Your task to perform on an android device: open app "Google Translate" (install if not already installed) Image 0: 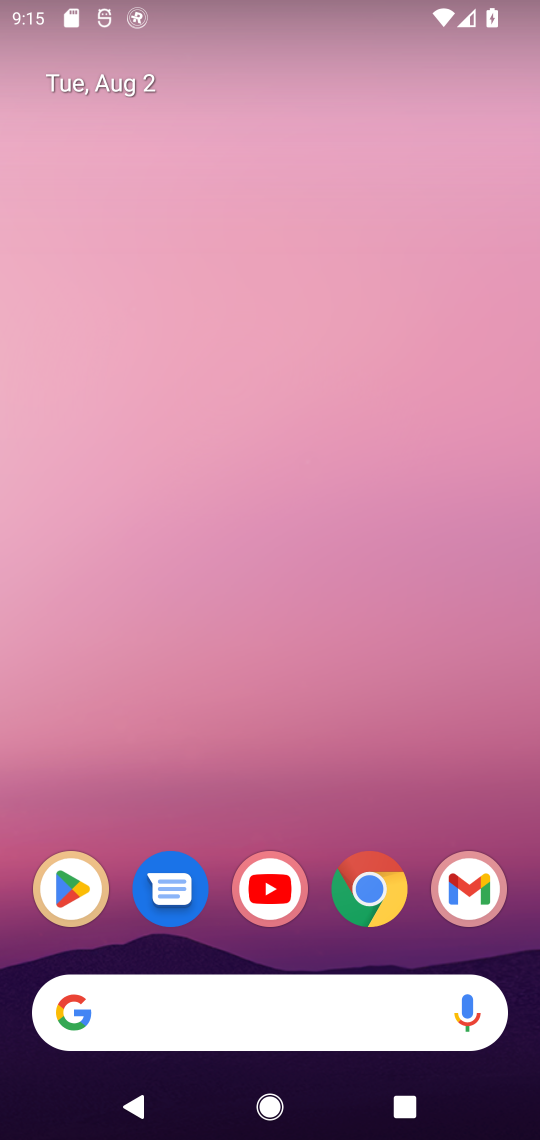
Step 0: click (83, 881)
Your task to perform on an android device: open app "Google Translate" (install if not already installed) Image 1: 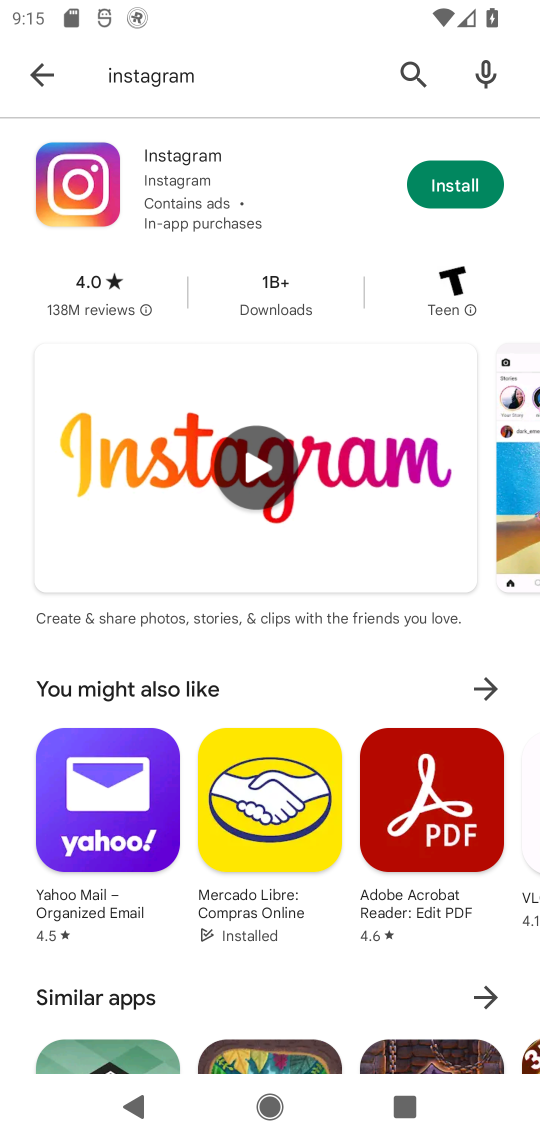
Step 1: press home button
Your task to perform on an android device: open app "Google Translate" (install if not already installed) Image 2: 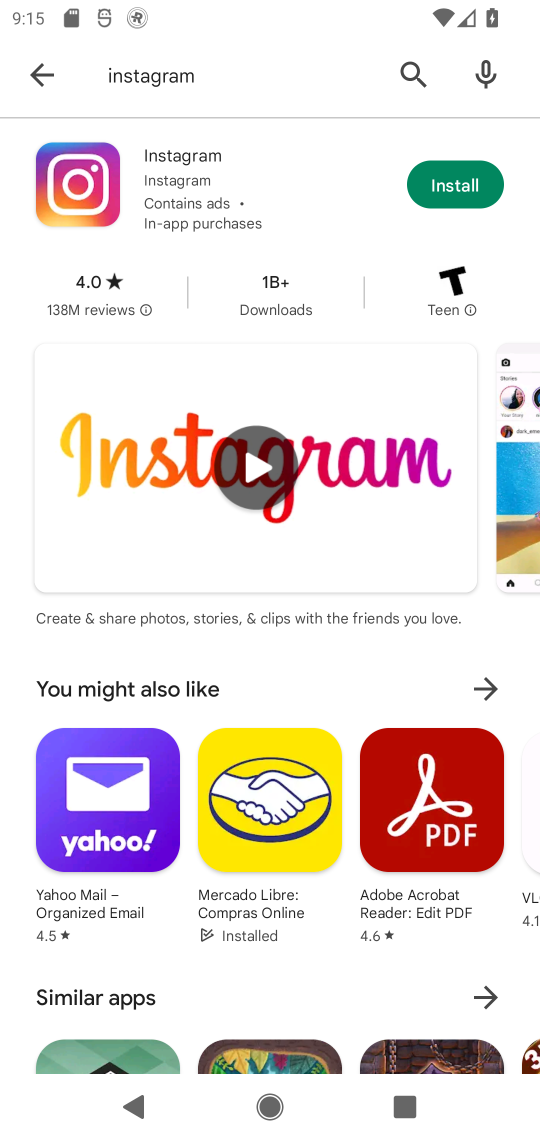
Step 2: press home button
Your task to perform on an android device: open app "Google Translate" (install if not already installed) Image 3: 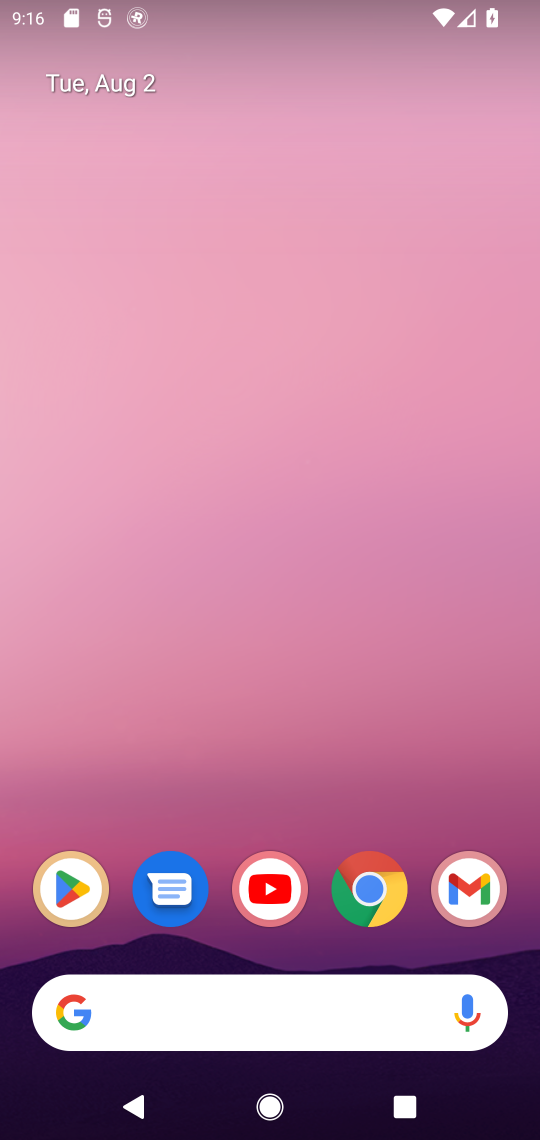
Step 3: click (74, 886)
Your task to perform on an android device: open app "Google Translate" (install if not already installed) Image 4: 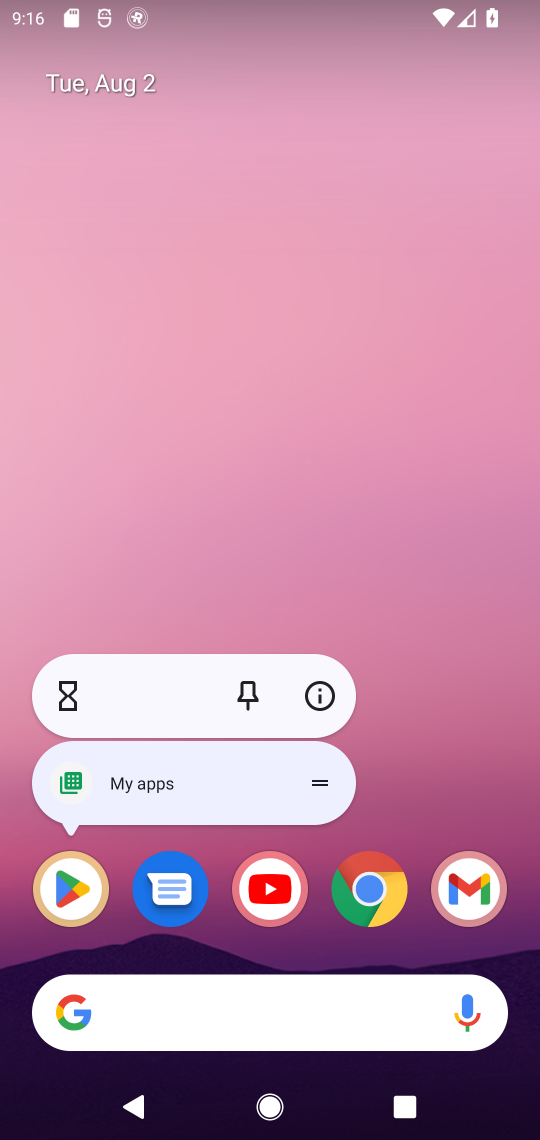
Step 4: click (74, 886)
Your task to perform on an android device: open app "Google Translate" (install if not already installed) Image 5: 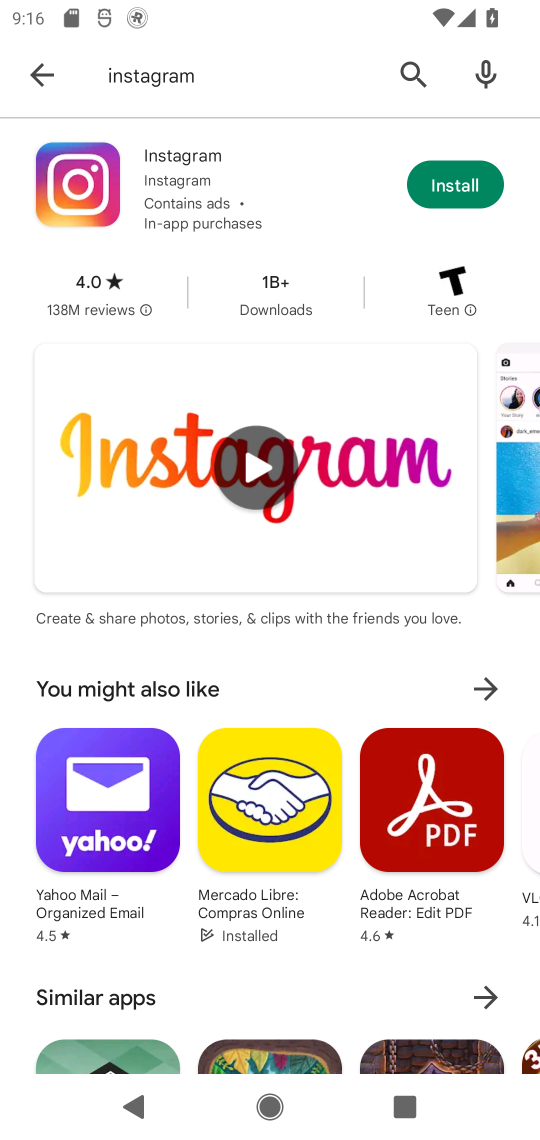
Step 5: click (413, 62)
Your task to perform on an android device: open app "Google Translate" (install if not already installed) Image 6: 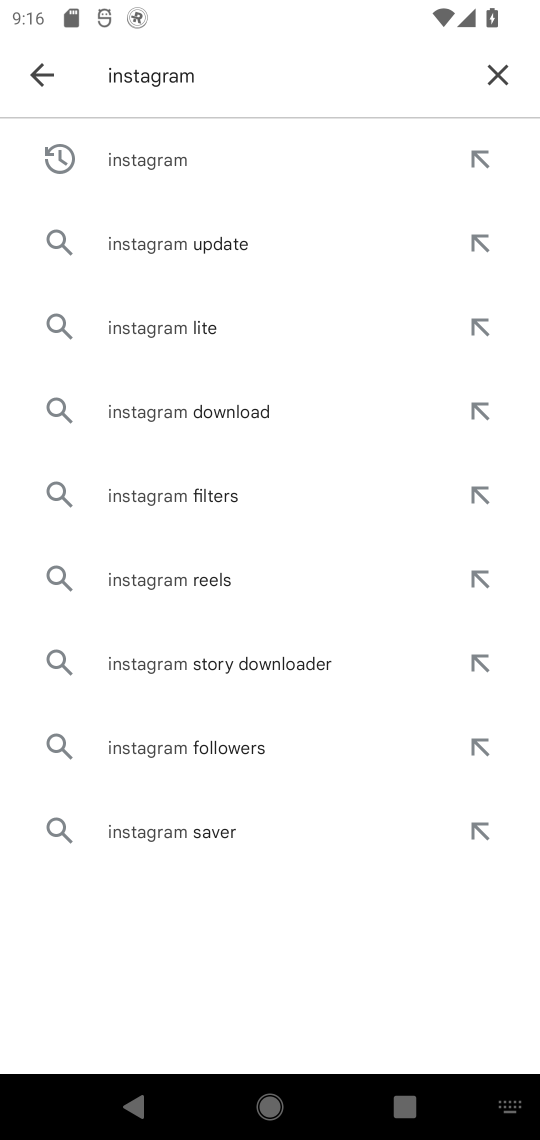
Step 6: click (490, 68)
Your task to perform on an android device: open app "Google Translate" (install if not already installed) Image 7: 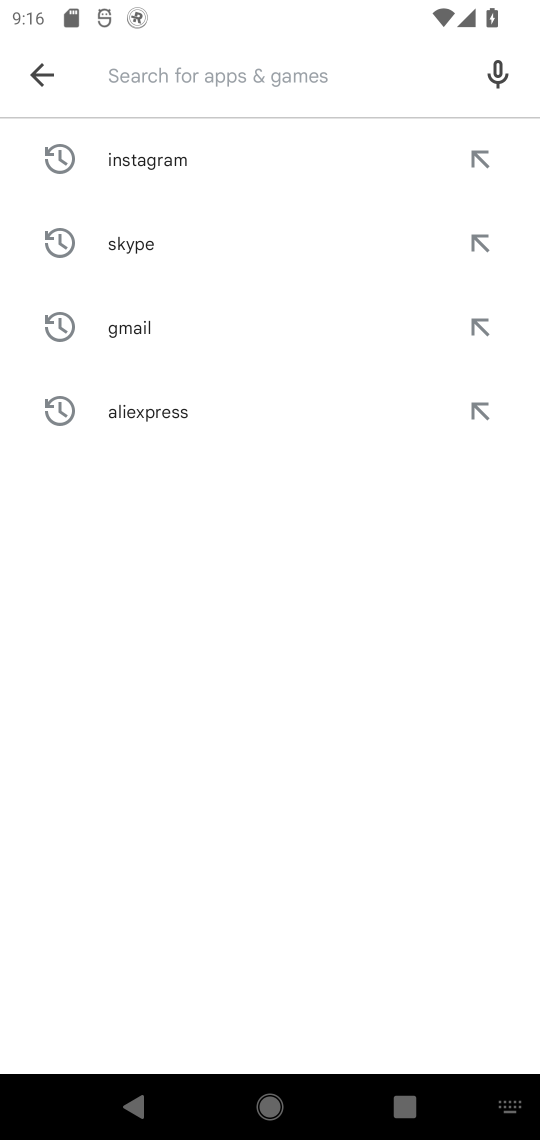
Step 7: click (208, 1137)
Your task to perform on an android device: open app "Google Translate" (install if not already installed) Image 8: 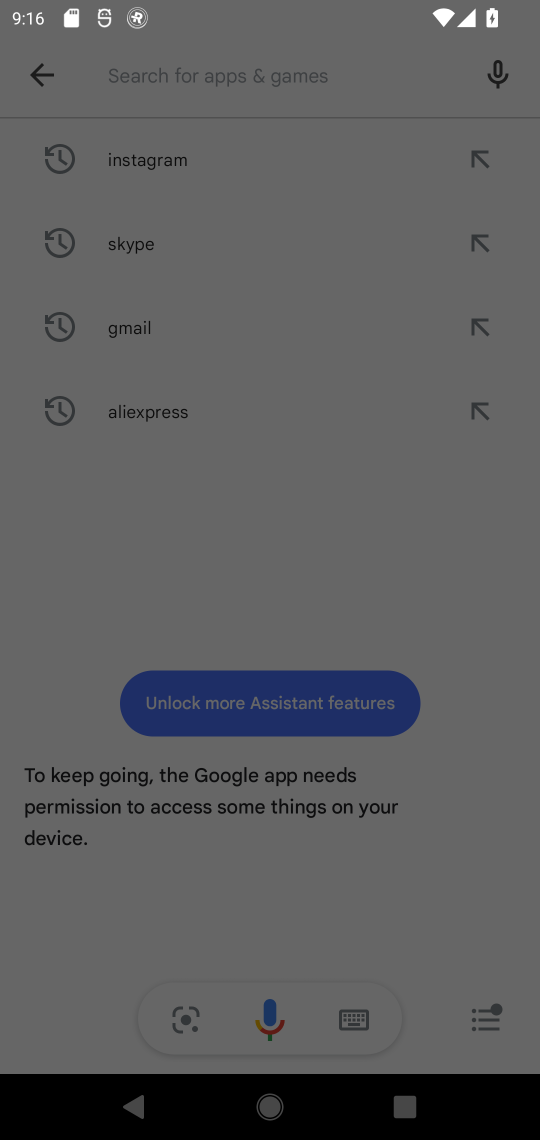
Step 8: type "Google Translate"
Your task to perform on an android device: open app "Google Translate" (install if not already installed) Image 9: 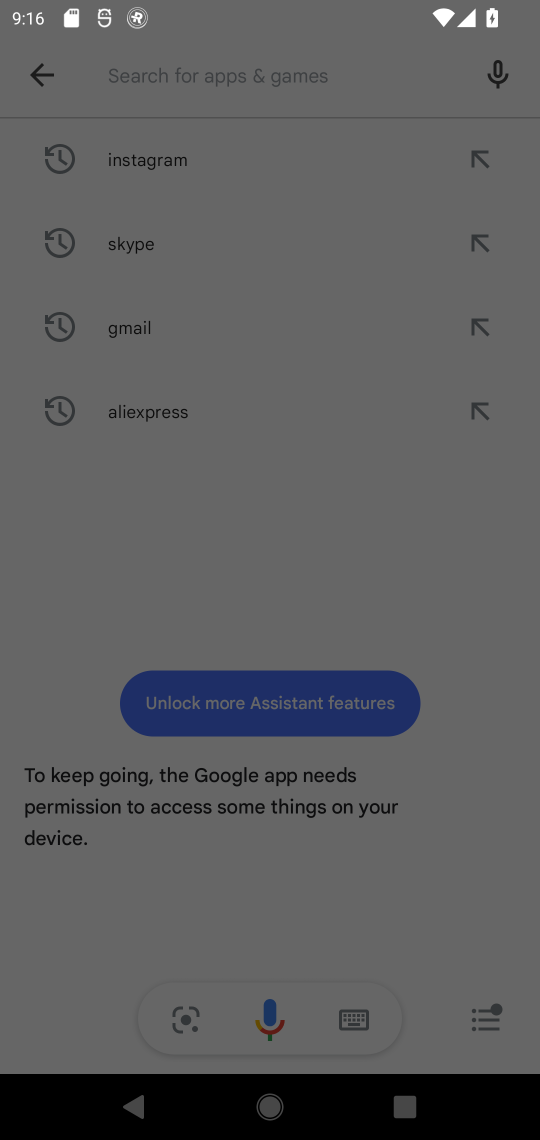
Step 9: click (230, 77)
Your task to perform on an android device: open app "Google Translate" (install if not already installed) Image 10: 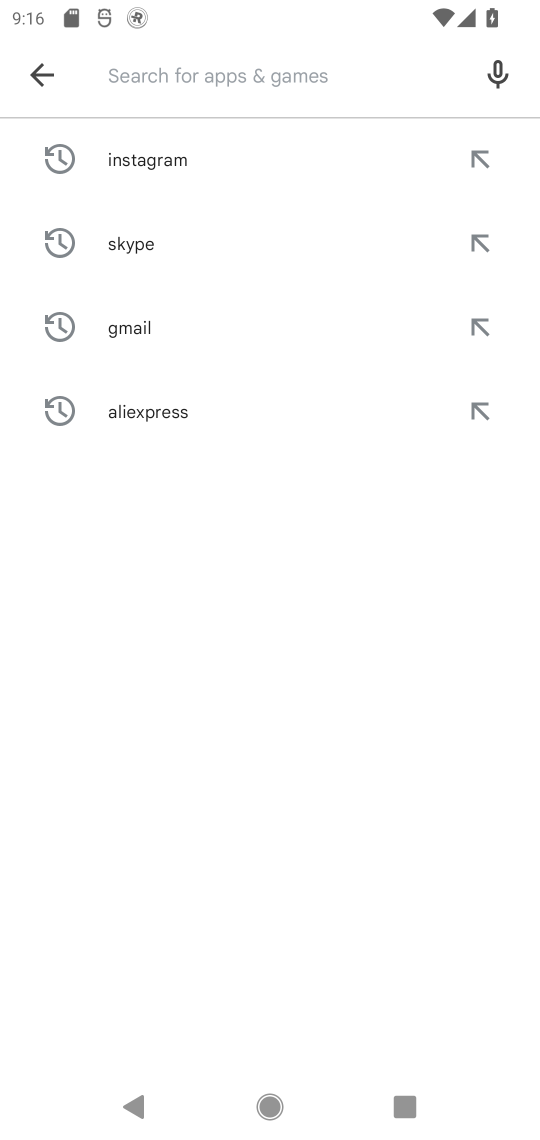
Step 10: type "Google Translate"
Your task to perform on an android device: open app "Google Translate" (install if not already installed) Image 11: 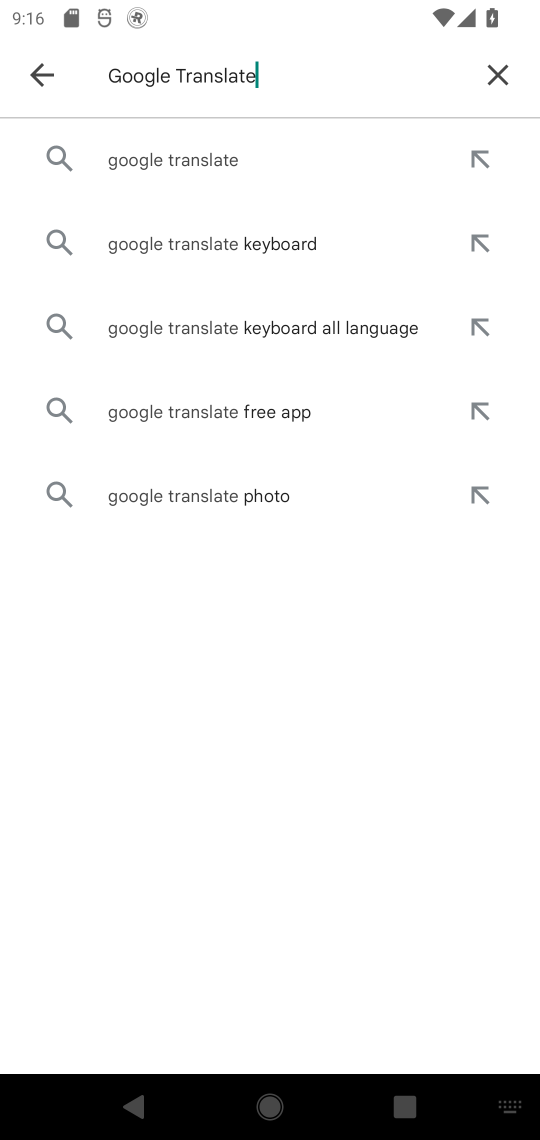
Step 11: click (211, 164)
Your task to perform on an android device: open app "Google Translate" (install if not already installed) Image 12: 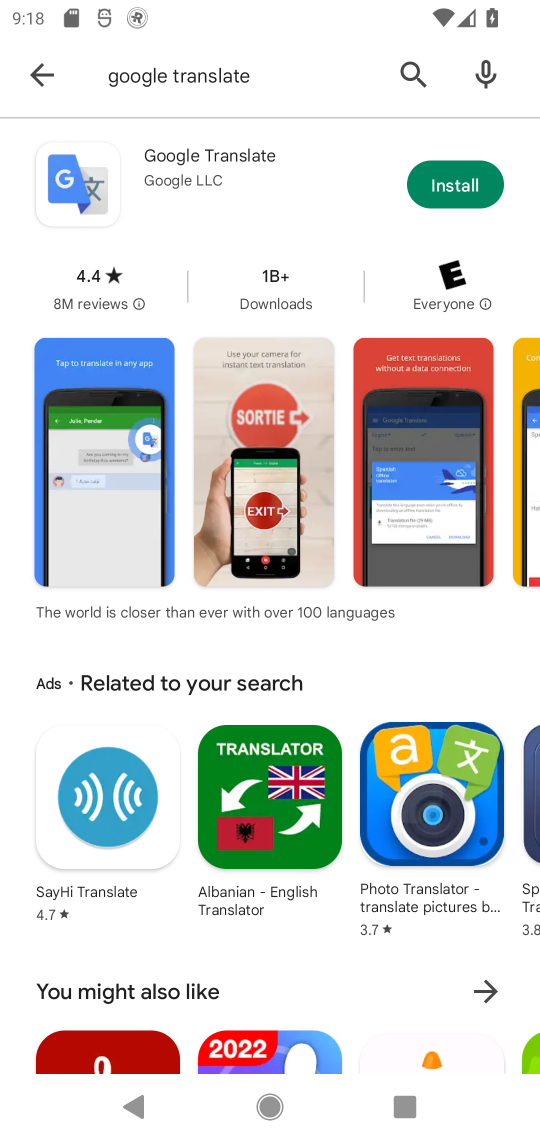
Step 12: click (456, 191)
Your task to perform on an android device: open app "Google Translate" (install if not already installed) Image 13: 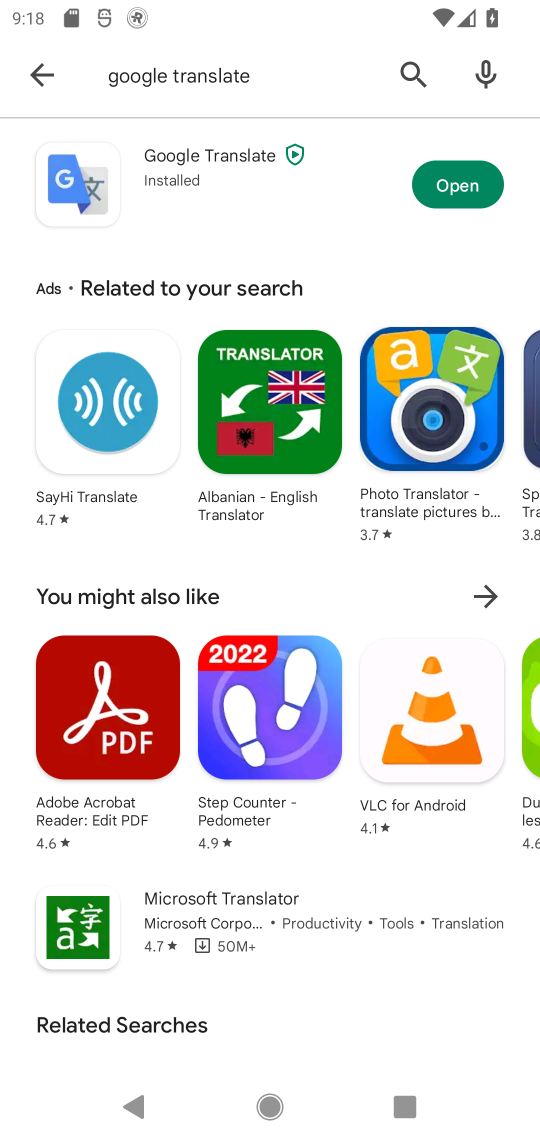
Step 13: click (456, 190)
Your task to perform on an android device: open app "Google Translate" (install if not already installed) Image 14: 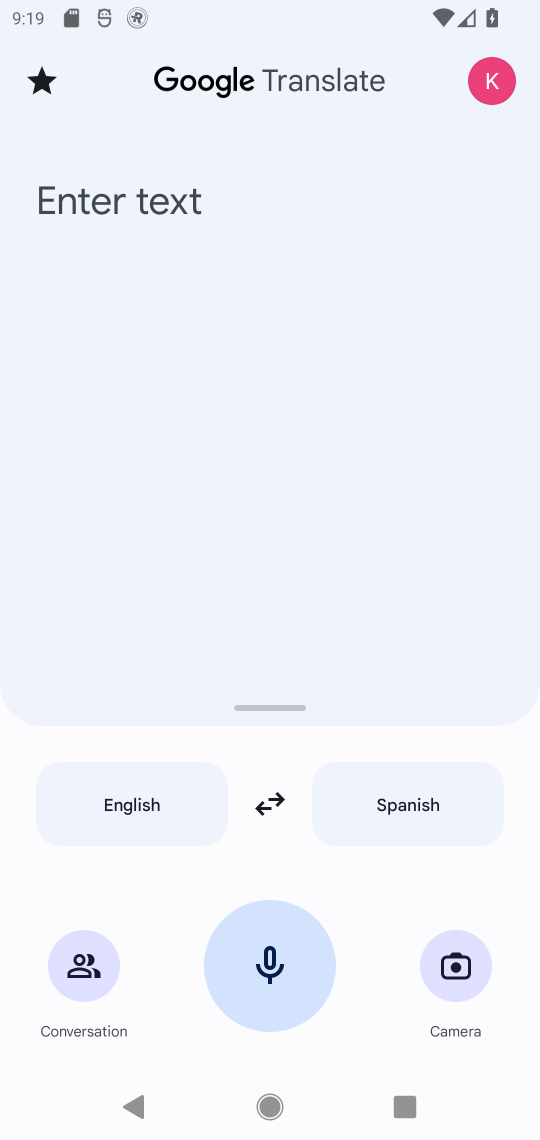
Step 14: task complete